Your task to perform on an android device: add a contact Image 0: 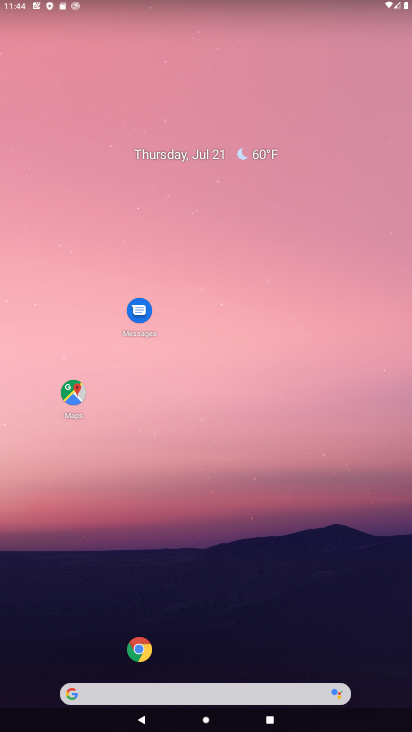
Step 0: drag from (119, 286) to (146, 237)
Your task to perform on an android device: add a contact Image 1: 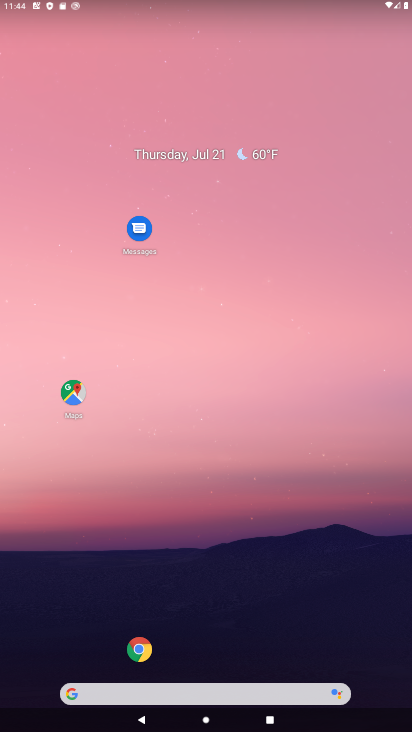
Step 1: drag from (30, 678) to (208, 68)
Your task to perform on an android device: add a contact Image 2: 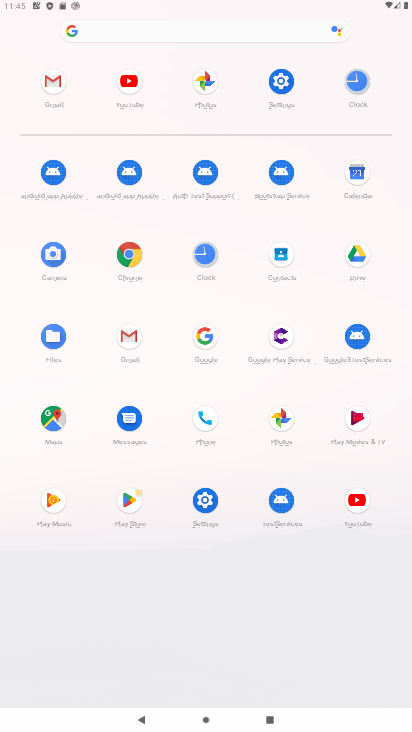
Step 2: click (282, 263)
Your task to perform on an android device: add a contact Image 3: 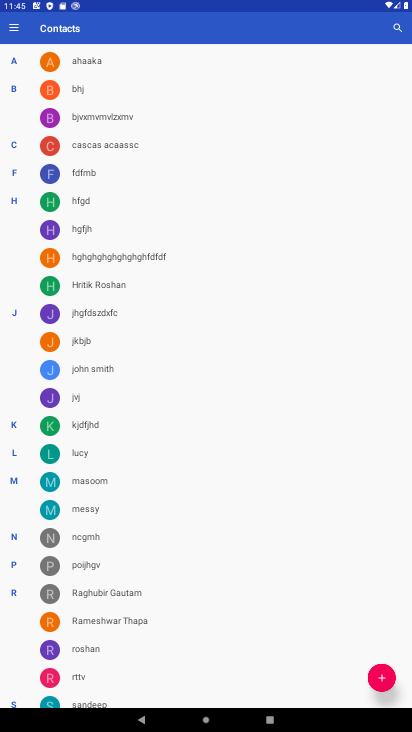
Step 3: click (377, 669)
Your task to perform on an android device: add a contact Image 4: 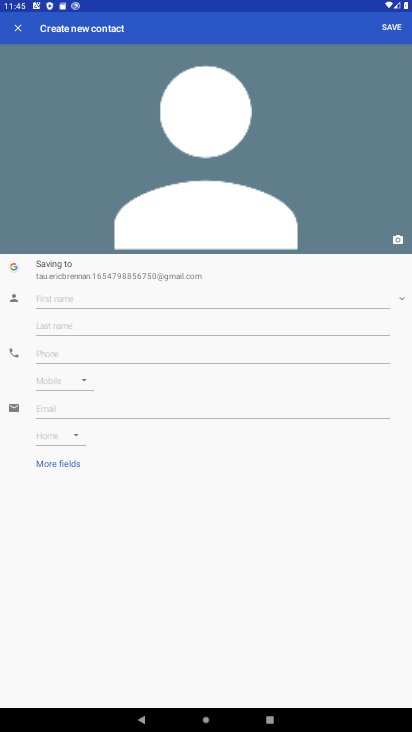
Step 4: click (55, 290)
Your task to perform on an android device: add a contact Image 5: 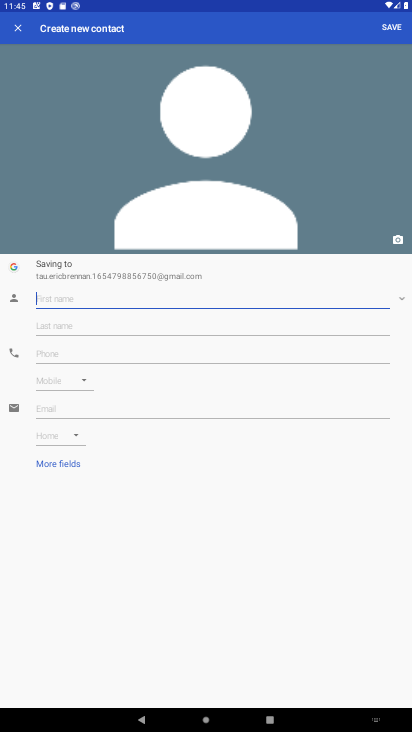
Step 5: type "fhdfjhn"
Your task to perform on an android device: add a contact Image 6: 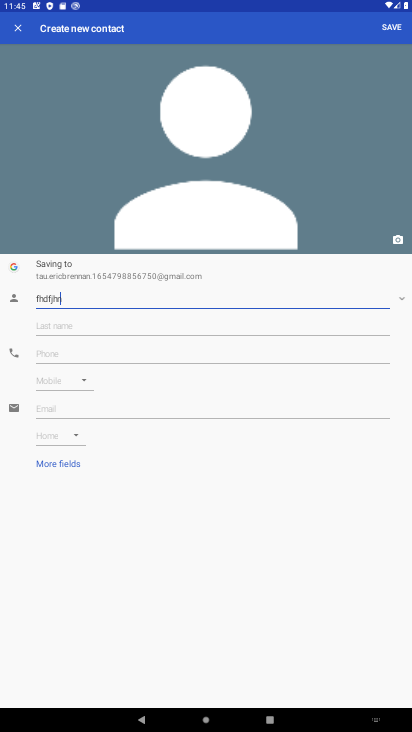
Step 6: type ""
Your task to perform on an android device: add a contact Image 7: 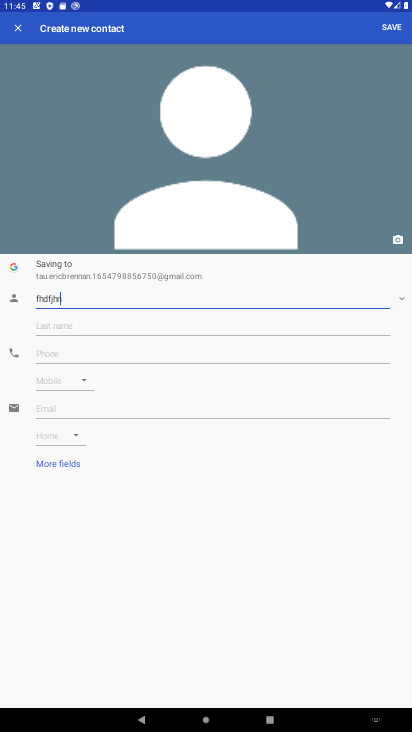
Step 7: click (391, 24)
Your task to perform on an android device: add a contact Image 8: 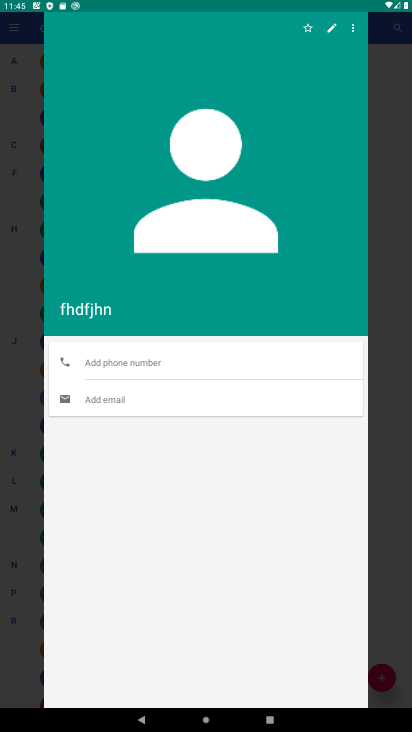
Step 8: task complete